Your task to perform on an android device: What is the news today? Image 0: 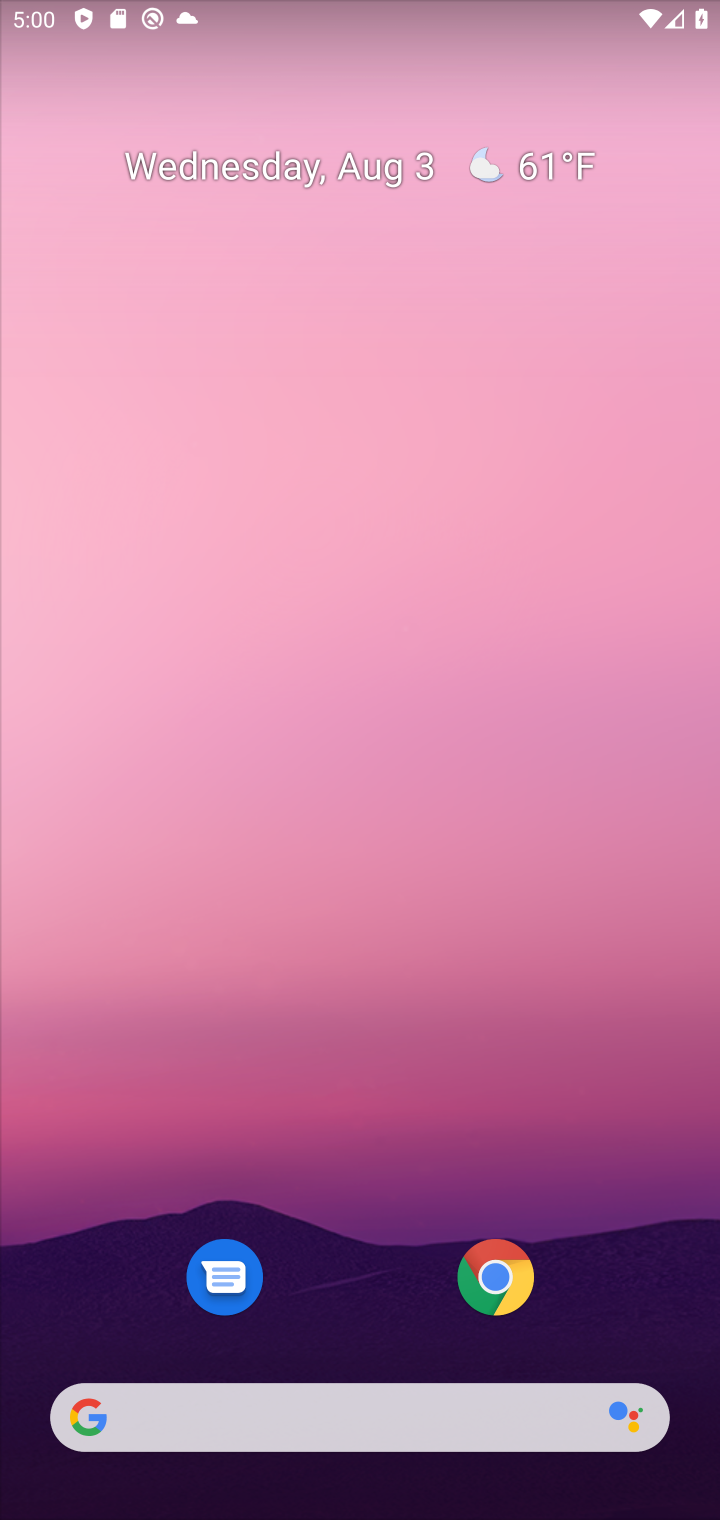
Step 0: drag from (319, 1218) to (560, 47)
Your task to perform on an android device: What is the news today? Image 1: 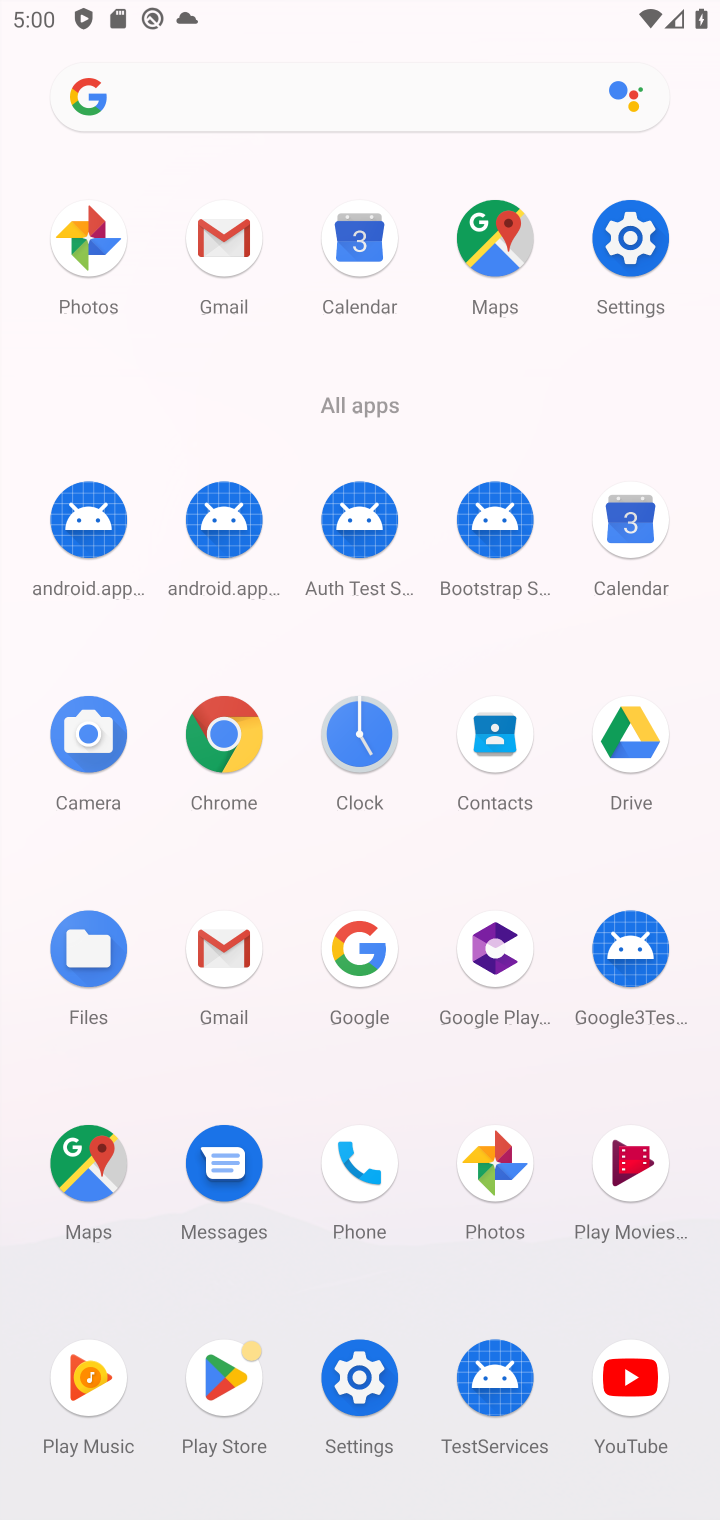
Step 1: click (363, 107)
Your task to perform on an android device: What is the news today? Image 2: 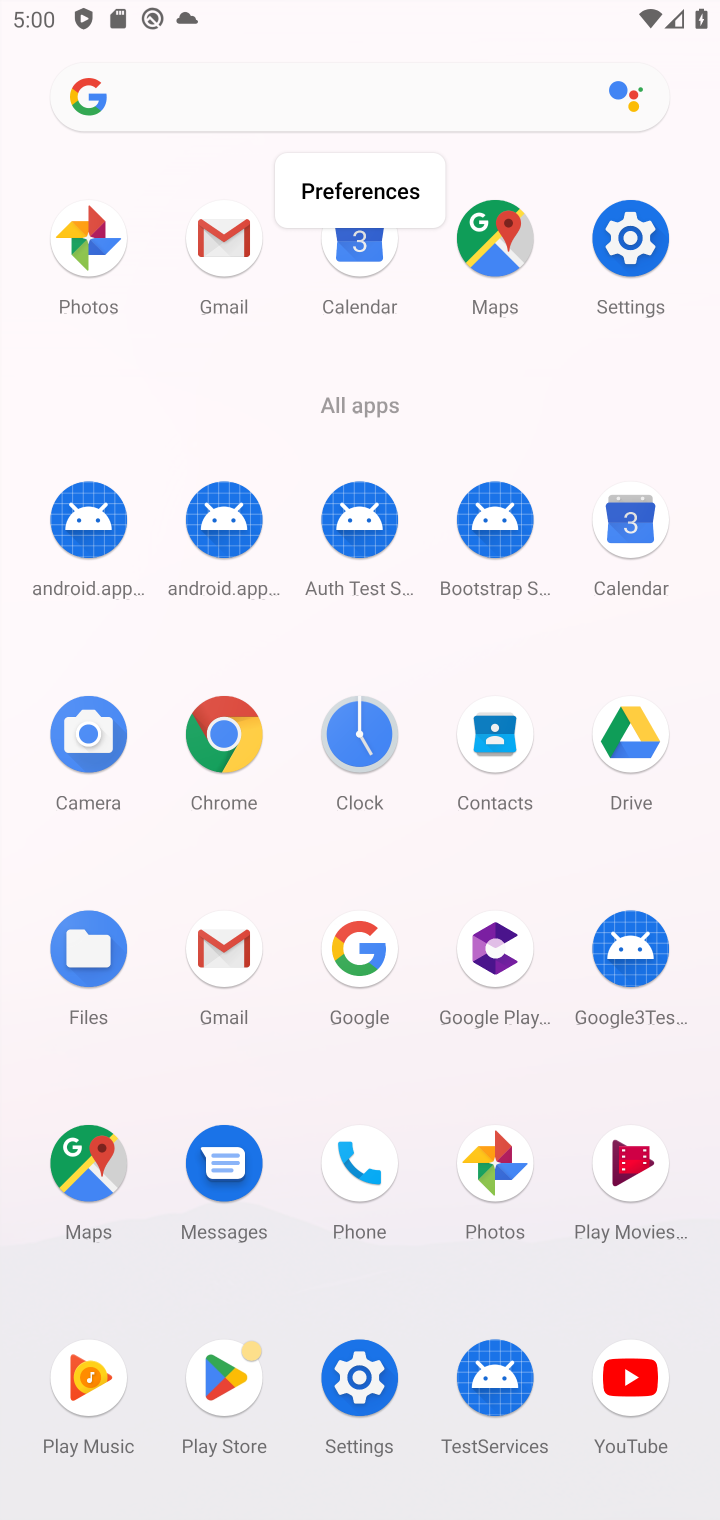
Step 2: click (334, 106)
Your task to perform on an android device: What is the news today? Image 3: 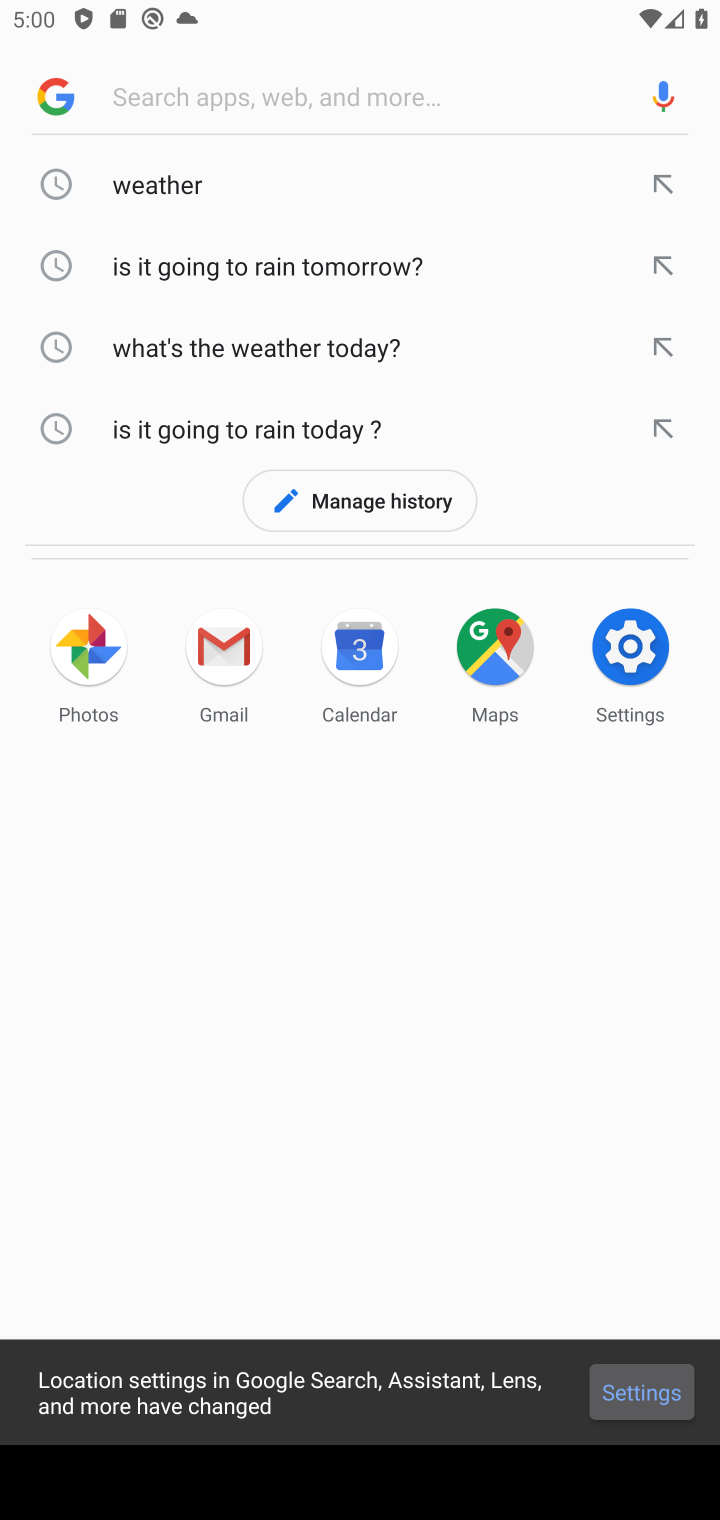
Step 3: click (277, 95)
Your task to perform on an android device: What is the news today? Image 4: 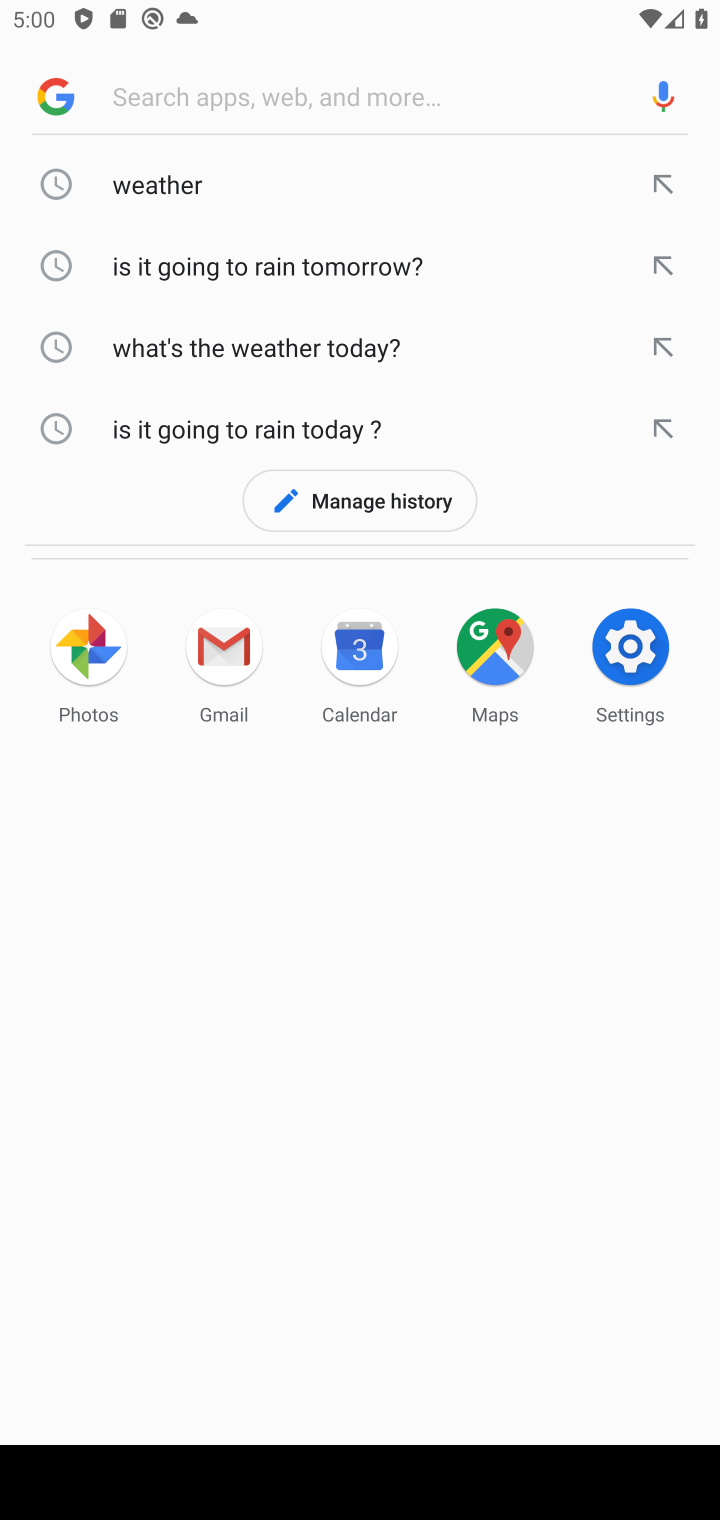
Step 4: type "news today"
Your task to perform on an android device: What is the news today? Image 5: 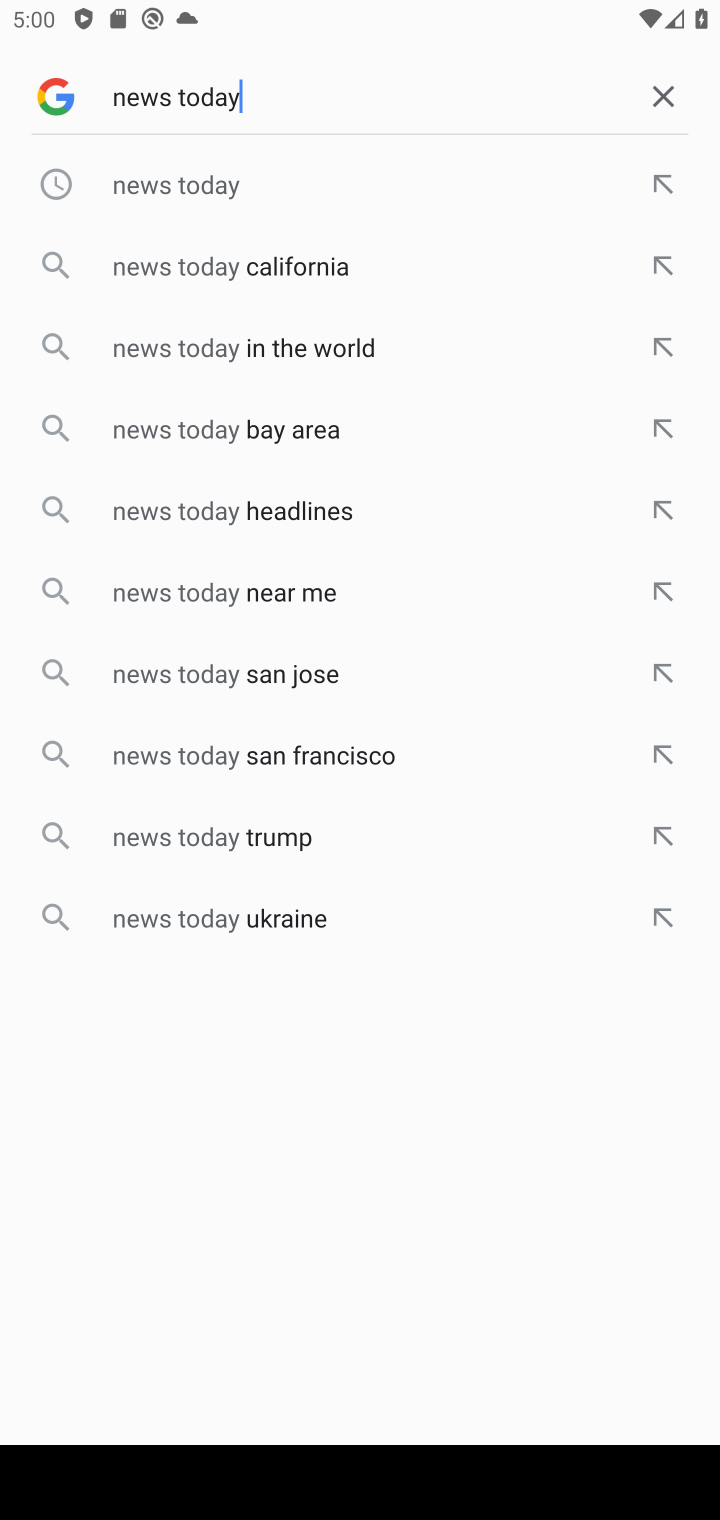
Step 5: click (195, 167)
Your task to perform on an android device: What is the news today? Image 6: 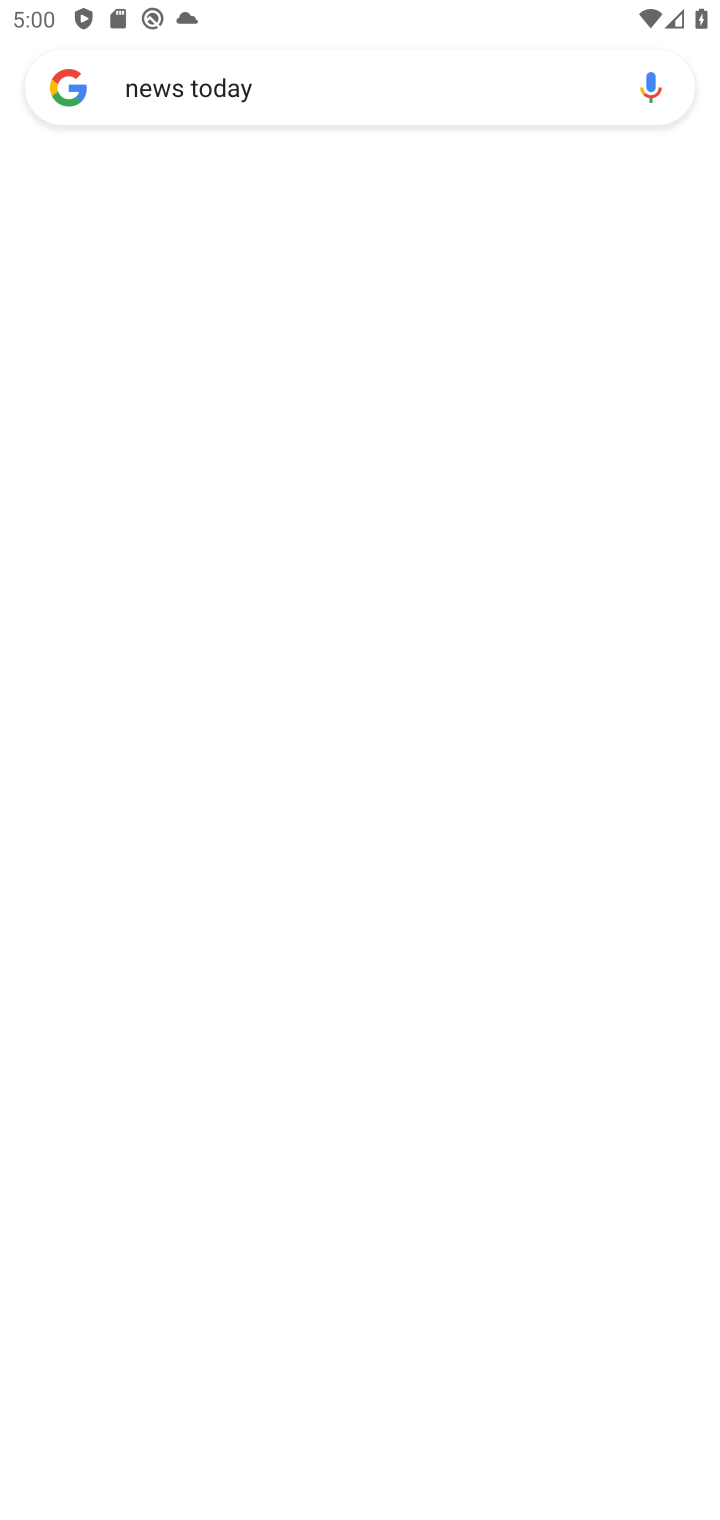
Step 6: click (223, 174)
Your task to perform on an android device: What is the news today? Image 7: 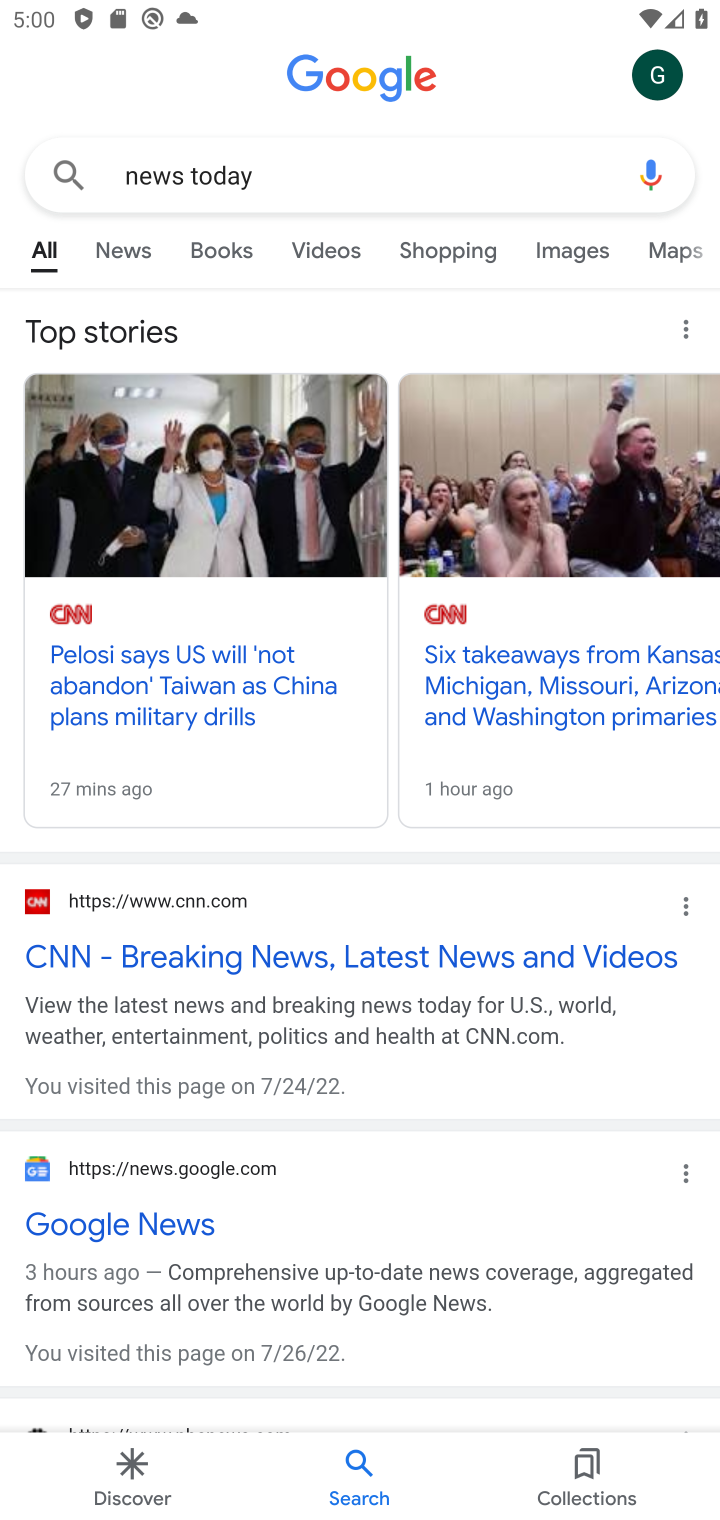
Step 7: task complete